Your task to perform on an android device: Open the phone app and click the voicemail tab. Image 0: 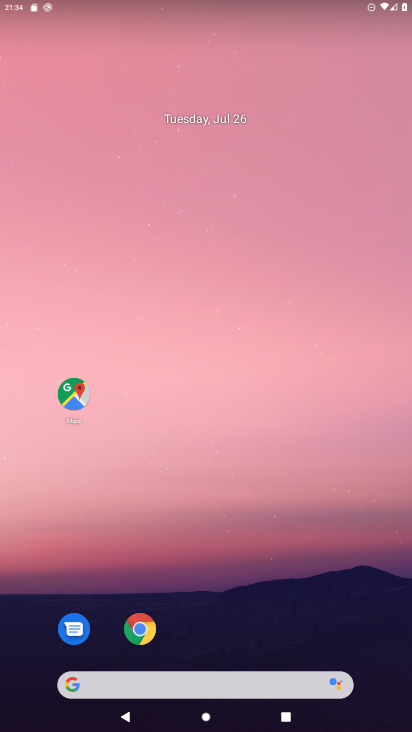
Step 0: press home button
Your task to perform on an android device: Open the phone app and click the voicemail tab. Image 1: 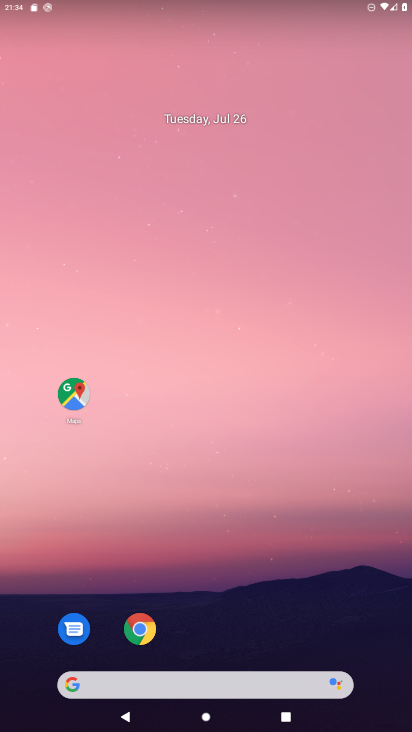
Step 1: drag from (301, 665) to (250, 95)
Your task to perform on an android device: Open the phone app and click the voicemail tab. Image 2: 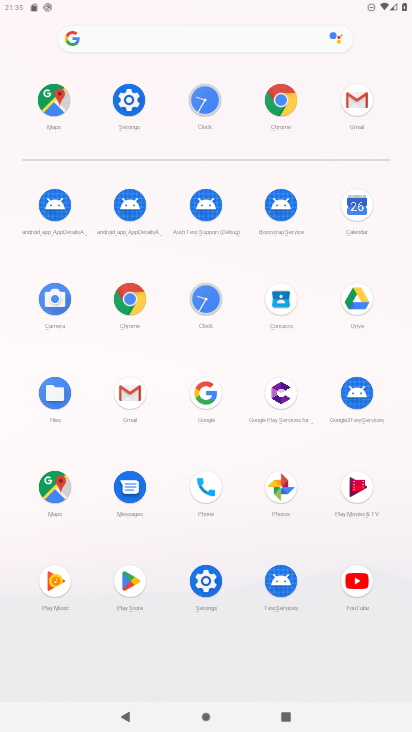
Step 2: click (220, 510)
Your task to perform on an android device: Open the phone app and click the voicemail tab. Image 3: 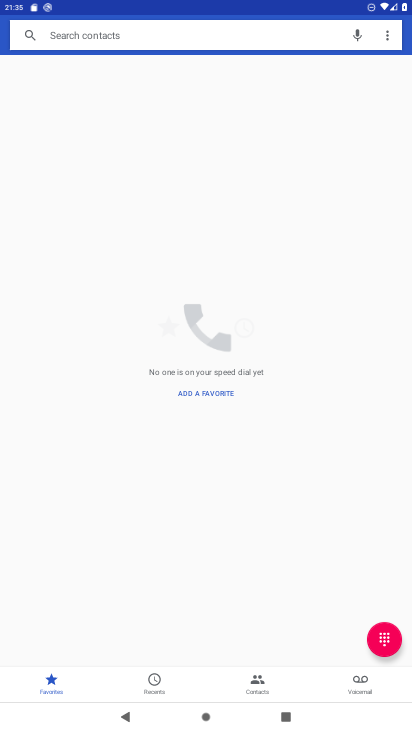
Step 3: click (357, 678)
Your task to perform on an android device: Open the phone app and click the voicemail tab. Image 4: 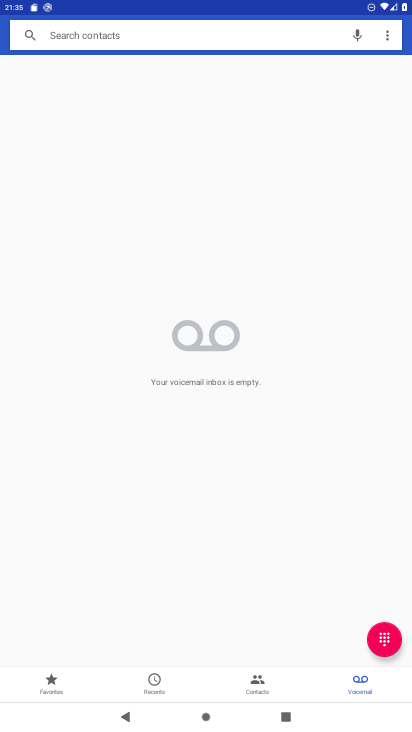
Step 4: click (357, 678)
Your task to perform on an android device: Open the phone app and click the voicemail tab. Image 5: 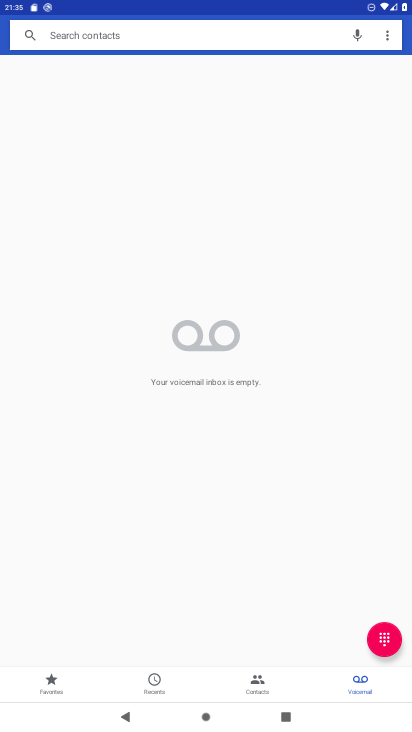
Step 5: task complete